Your task to perform on an android device: turn off javascript in the chrome app Image 0: 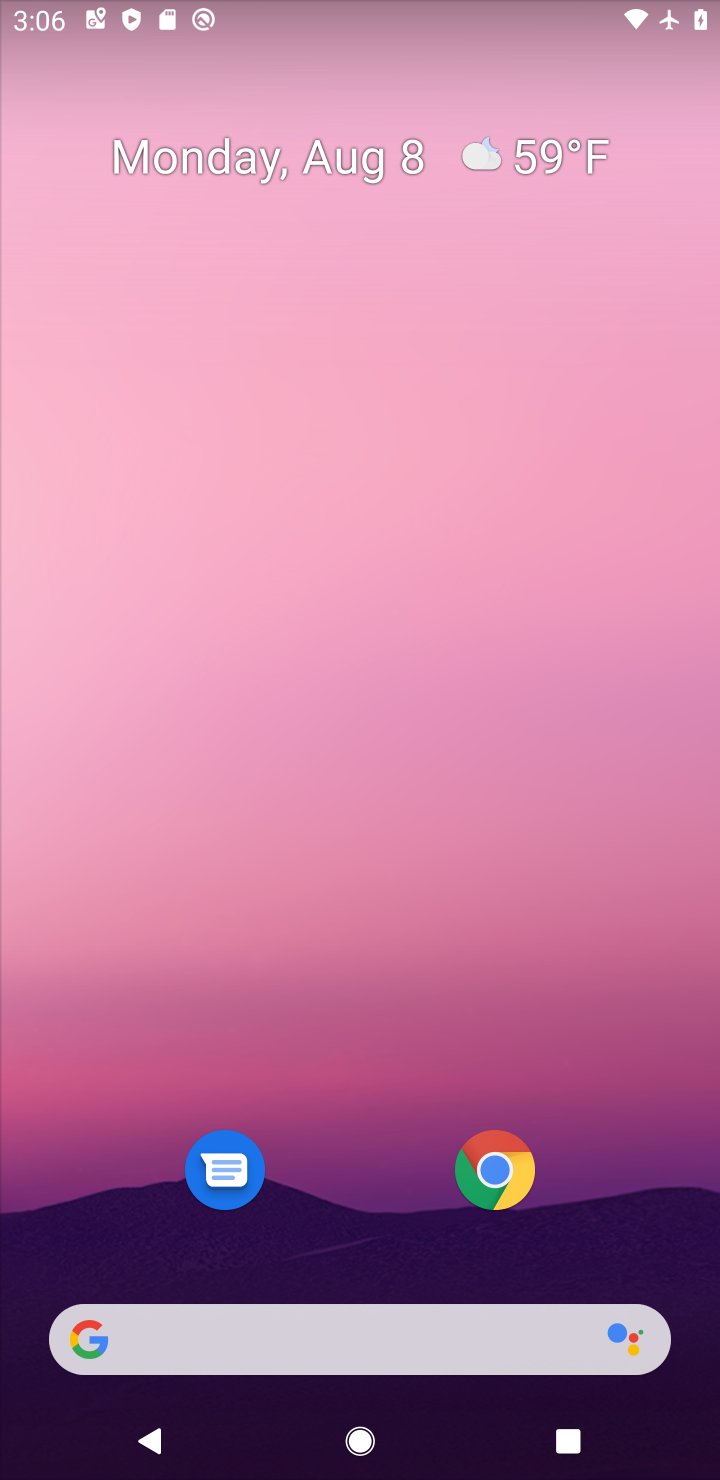
Step 0: click (508, 1174)
Your task to perform on an android device: turn off javascript in the chrome app Image 1: 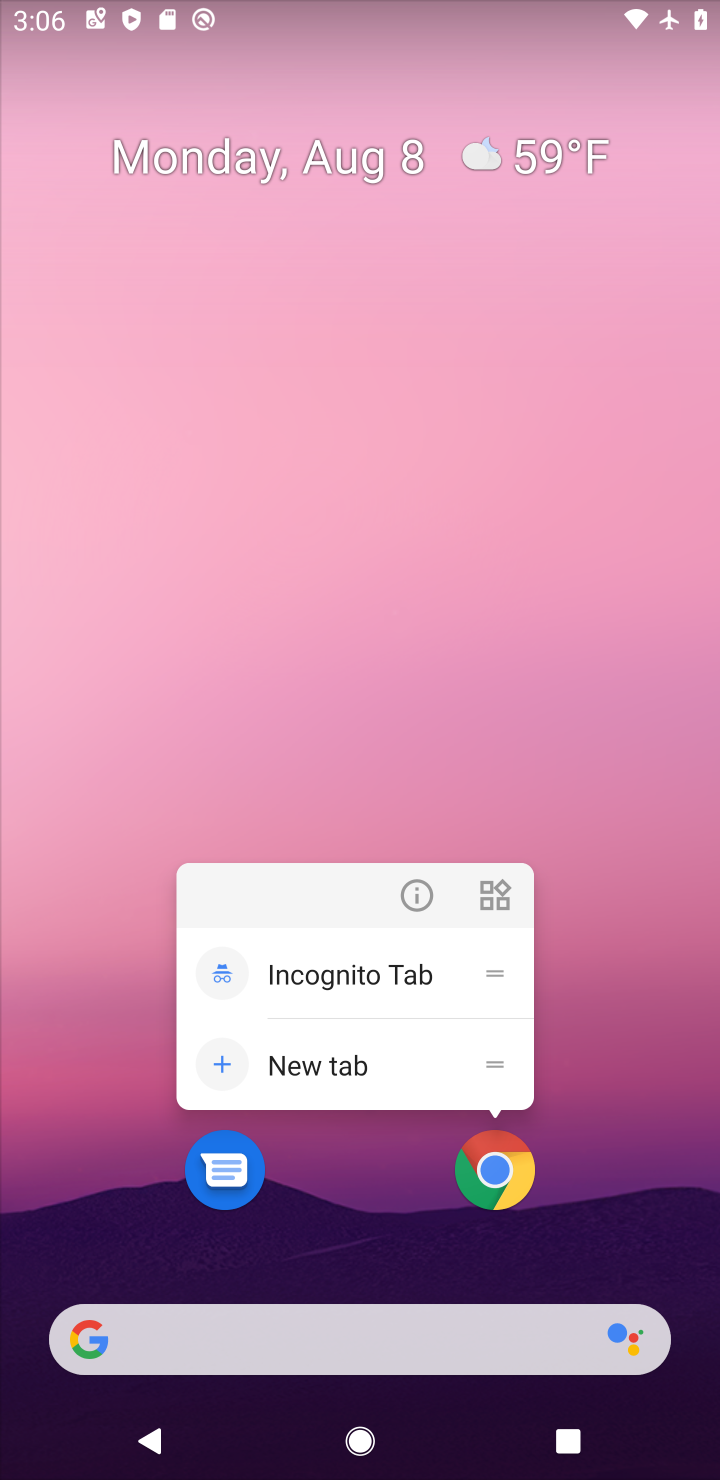
Step 1: click (508, 1174)
Your task to perform on an android device: turn off javascript in the chrome app Image 2: 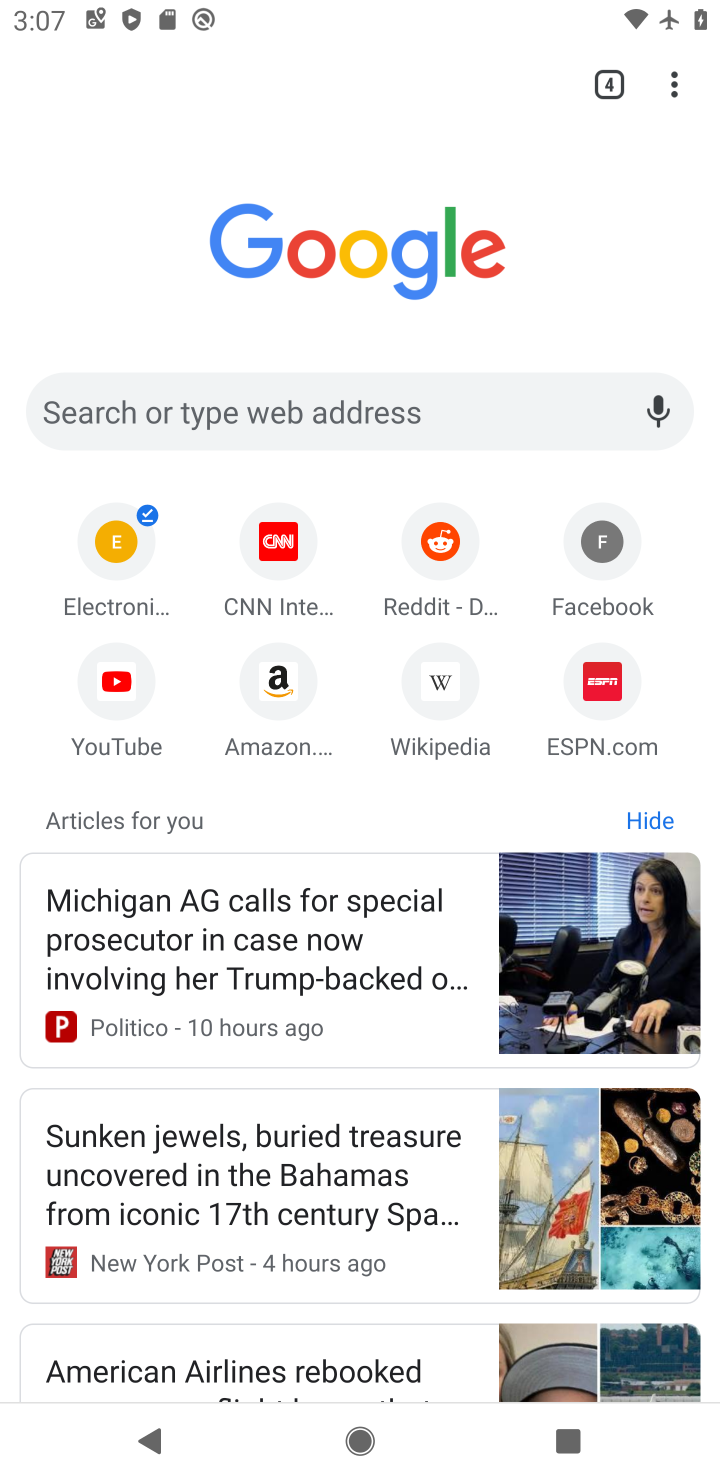
Step 2: click (675, 81)
Your task to perform on an android device: turn off javascript in the chrome app Image 3: 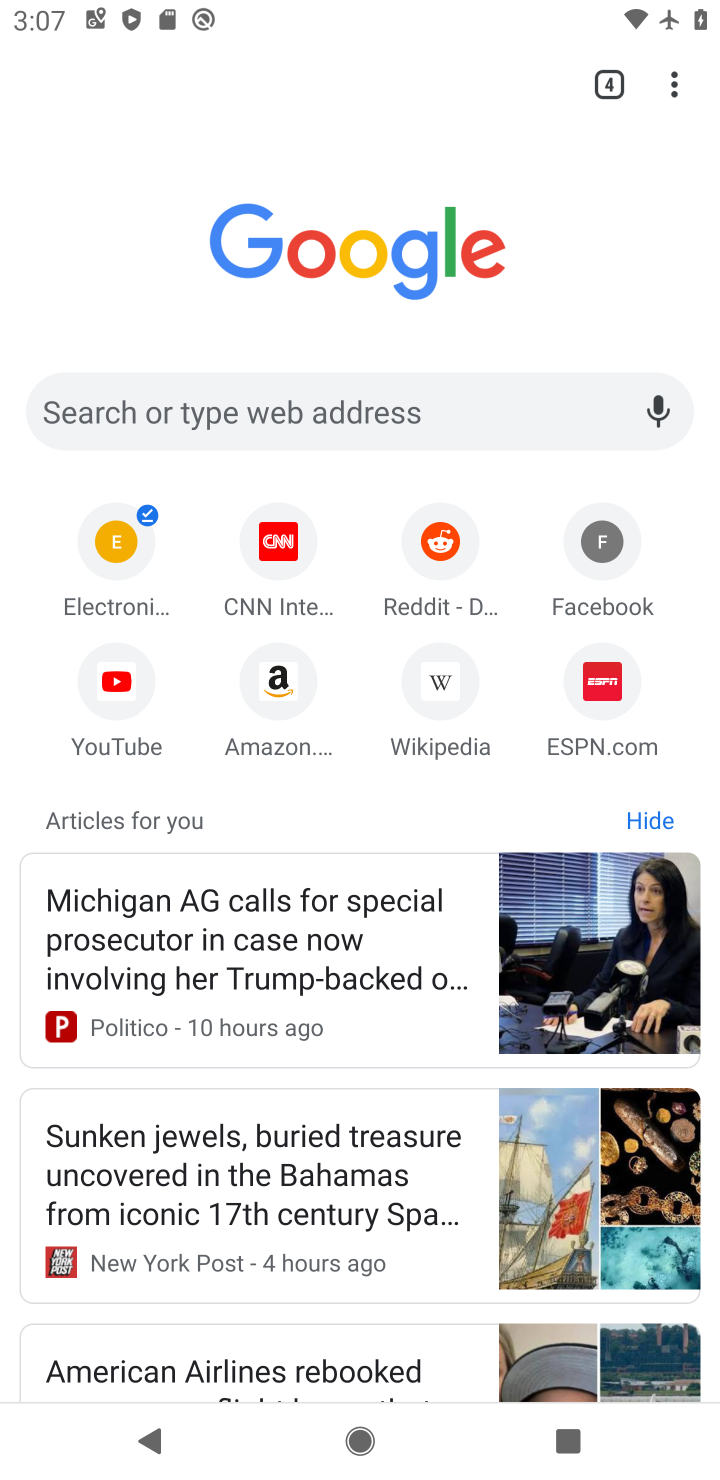
Step 3: drag from (675, 81) to (368, 701)
Your task to perform on an android device: turn off javascript in the chrome app Image 4: 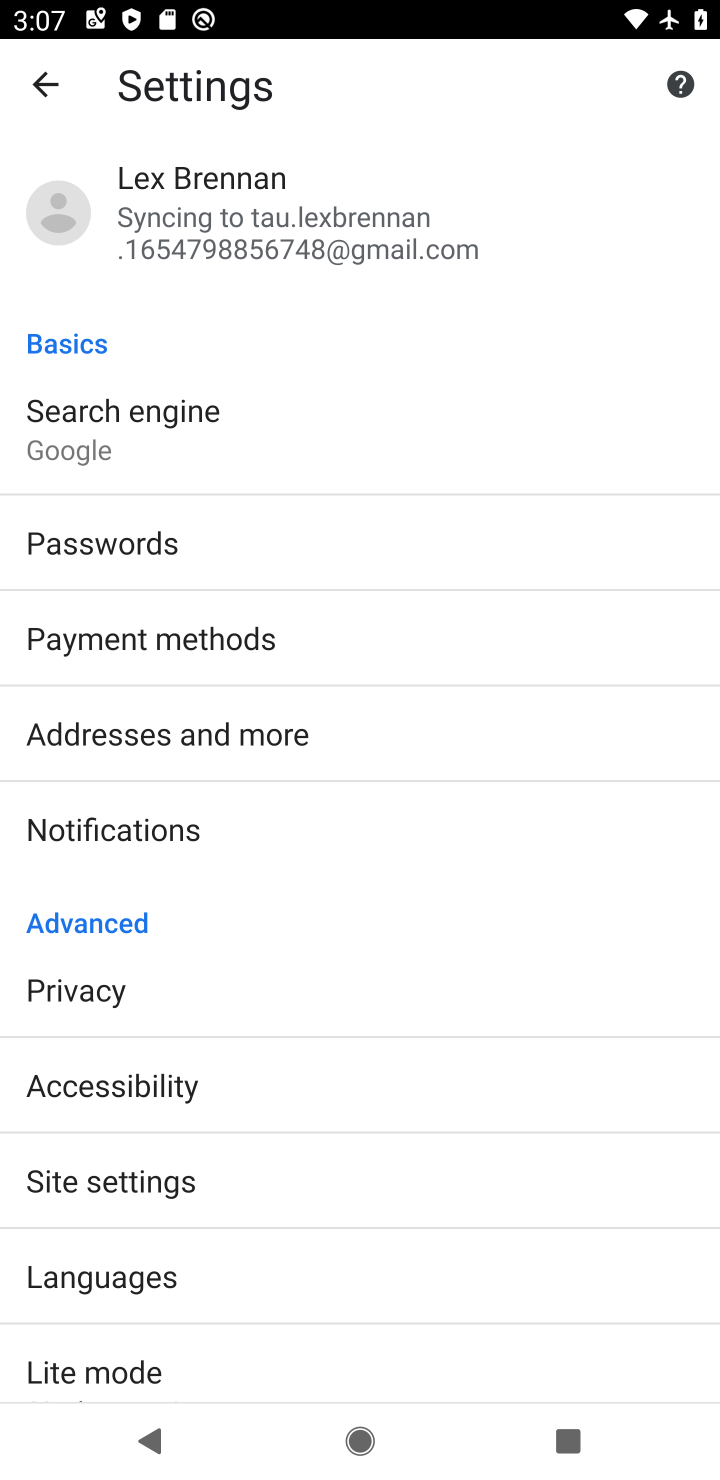
Step 4: click (216, 1185)
Your task to perform on an android device: turn off javascript in the chrome app Image 5: 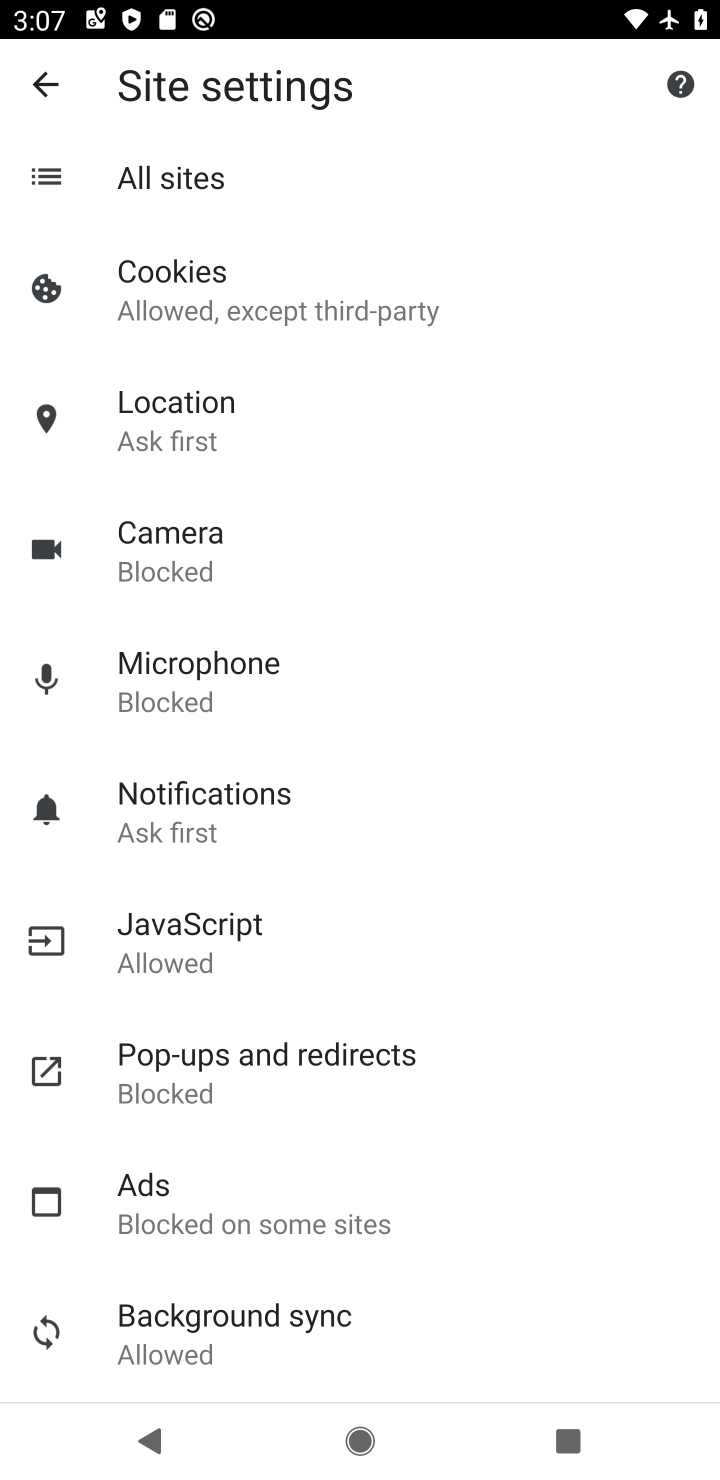
Step 5: click (262, 922)
Your task to perform on an android device: turn off javascript in the chrome app Image 6: 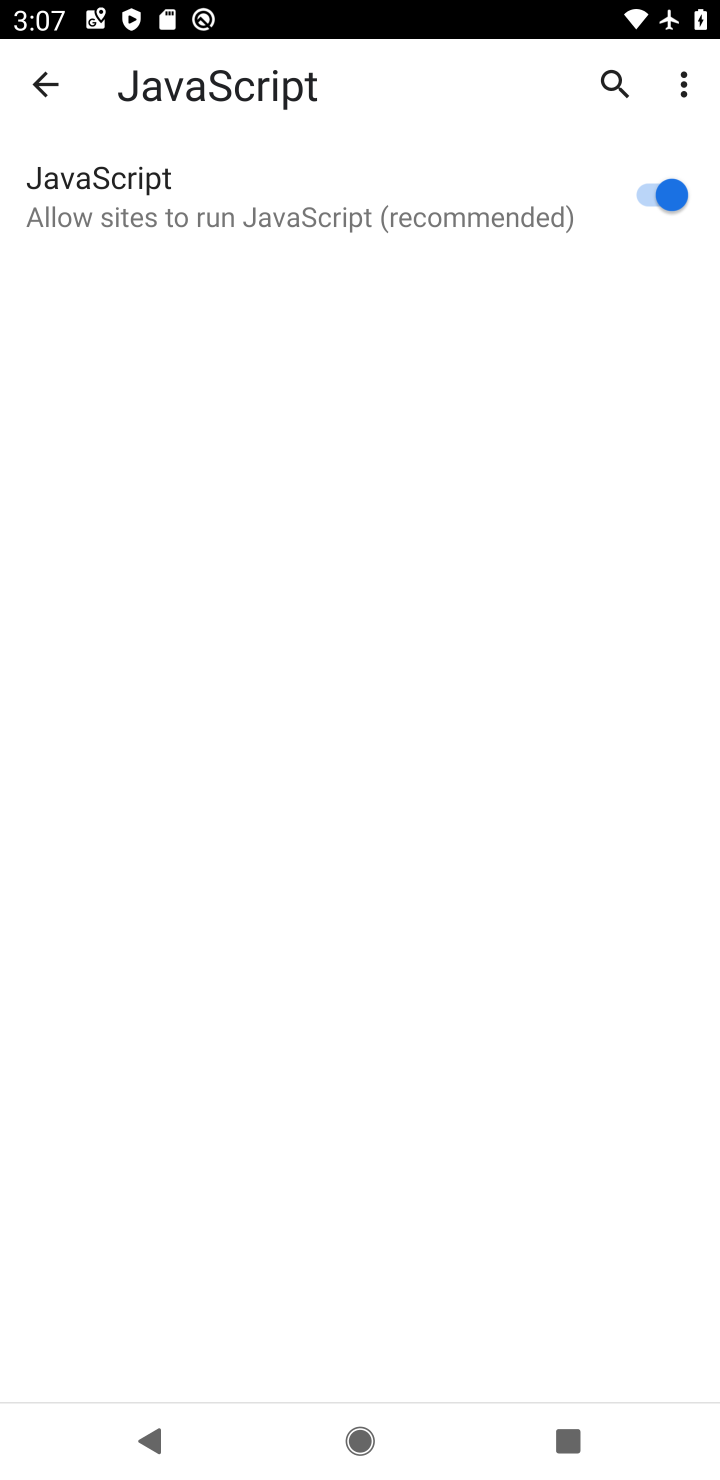
Step 6: click (641, 195)
Your task to perform on an android device: turn off javascript in the chrome app Image 7: 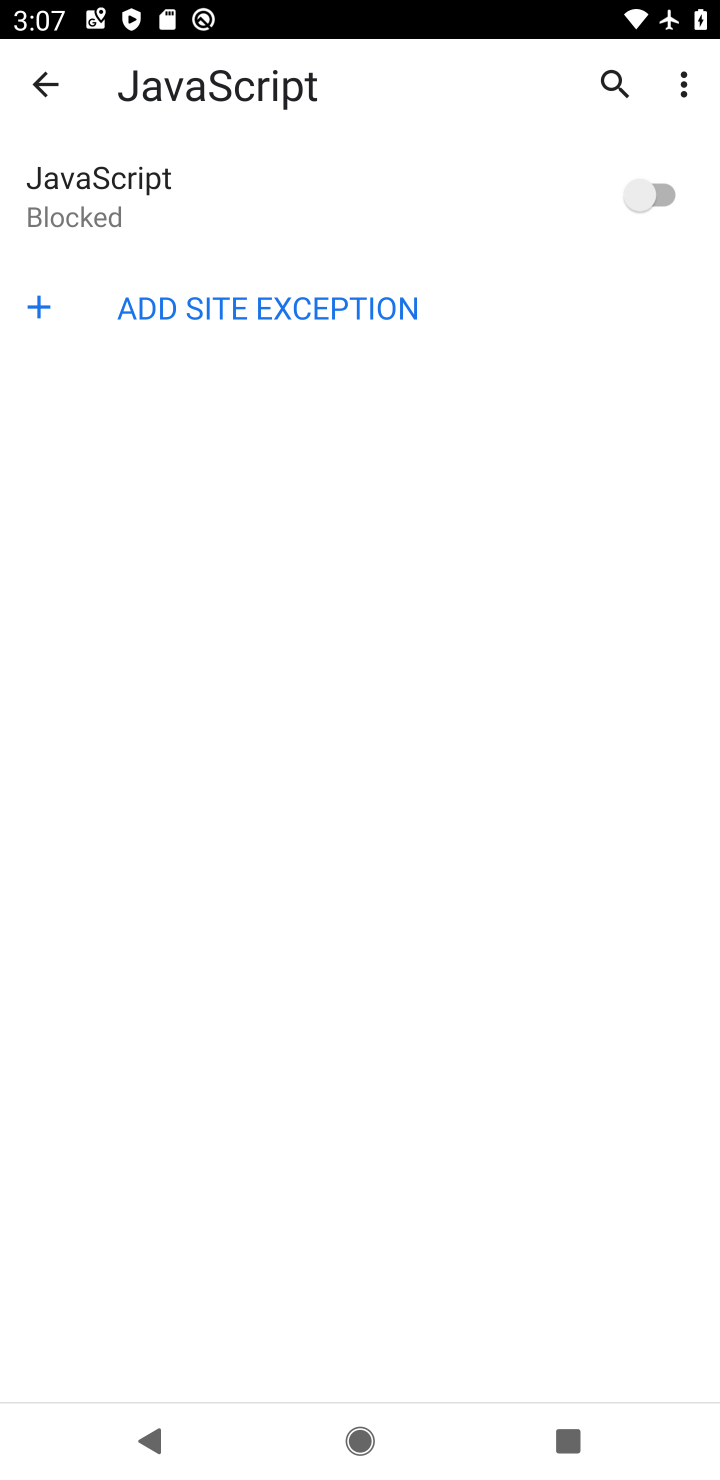
Step 7: task complete